Your task to perform on an android device: Open Youtube and go to the subscriptions tab Image 0: 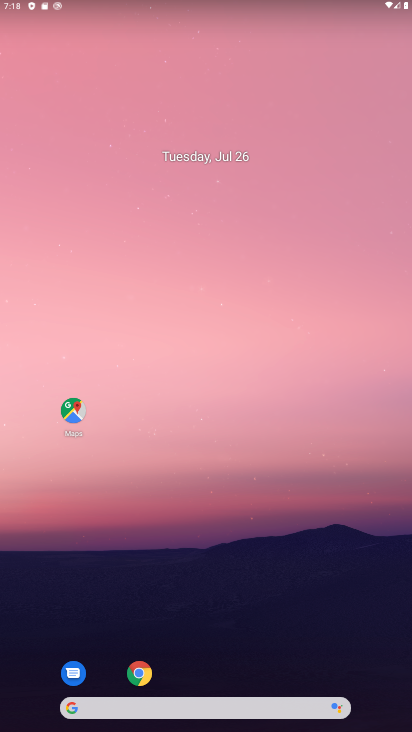
Step 0: drag from (287, 588) to (172, 88)
Your task to perform on an android device: Open Youtube and go to the subscriptions tab Image 1: 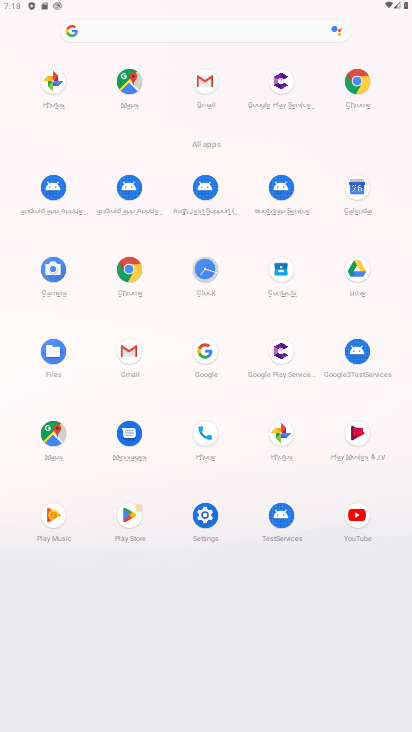
Step 1: click (347, 522)
Your task to perform on an android device: Open Youtube and go to the subscriptions tab Image 2: 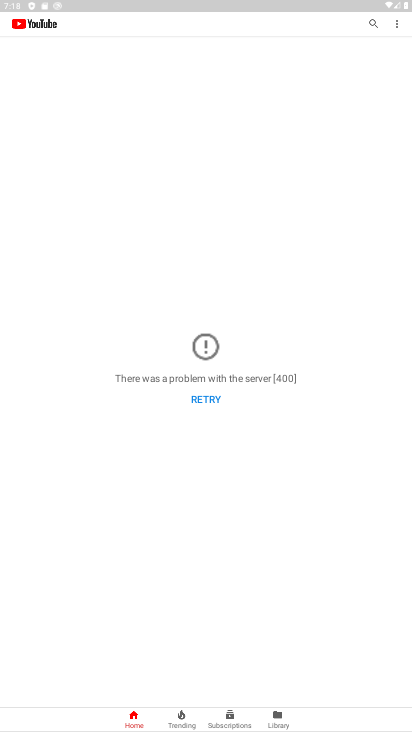
Step 2: click (234, 718)
Your task to perform on an android device: Open Youtube and go to the subscriptions tab Image 3: 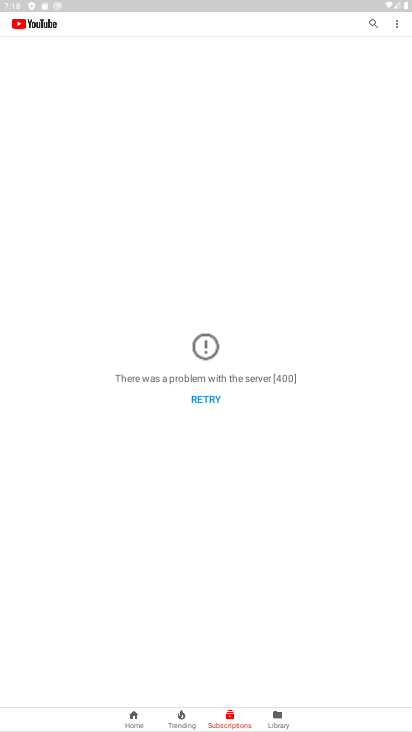
Step 3: click (202, 381)
Your task to perform on an android device: Open Youtube and go to the subscriptions tab Image 4: 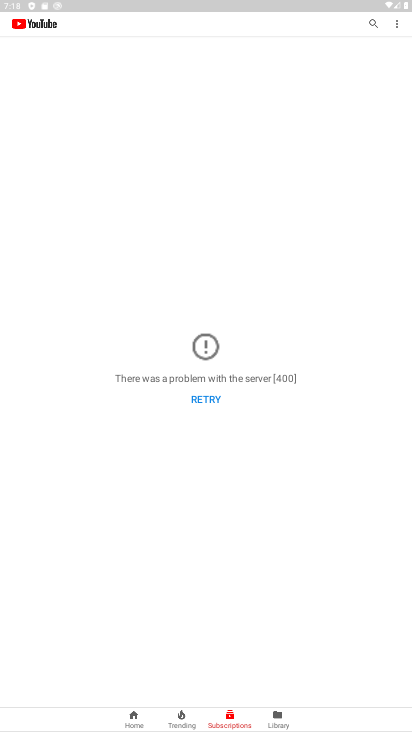
Step 4: click (211, 402)
Your task to perform on an android device: Open Youtube and go to the subscriptions tab Image 5: 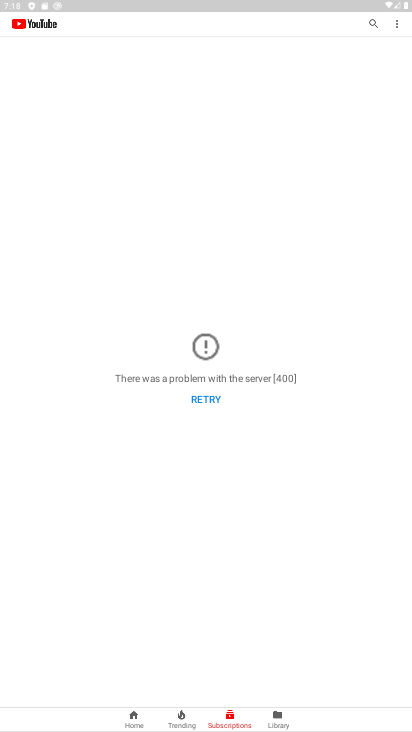
Step 5: click (211, 402)
Your task to perform on an android device: Open Youtube and go to the subscriptions tab Image 6: 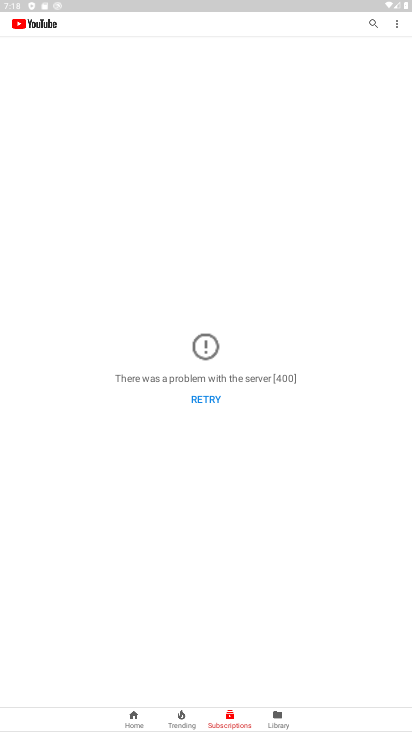
Step 6: task complete